Your task to perform on an android device: What's on my calendar today? Image 0: 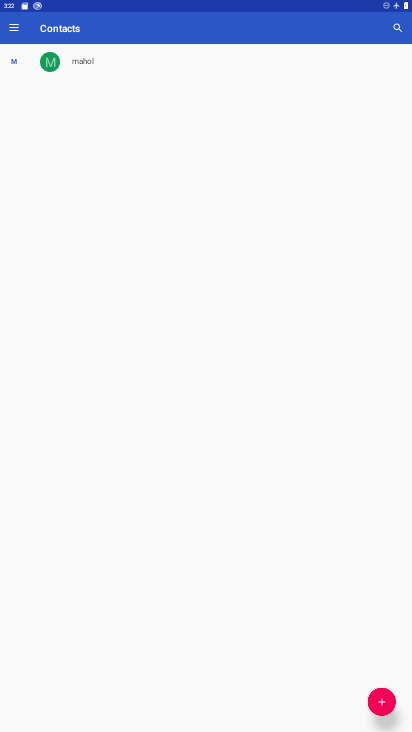
Step 0: press home button
Your task to perform on an android device: What's on my calendar today? Image 1: 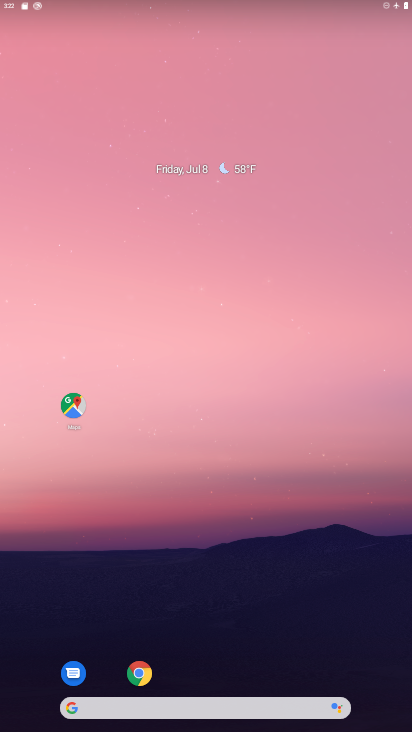
Step 1: drag from (238, 687) to (275, 345)
Your task to perform on an android device: What's on my calendar today? Image 2: 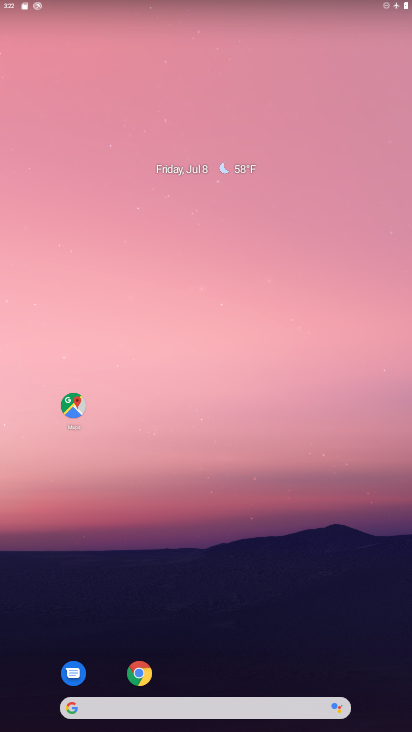
Step 2: drag from (242, 695) to (290, 309)
Your task to perform on an android device: What's on my calendar today? Image 3: 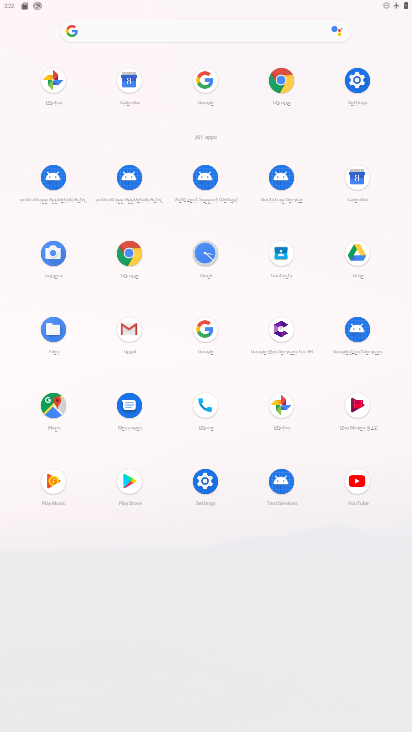
Step 3: click (348, 177)
Your task to perform on an android device: What's on my calendar today? Image 4: 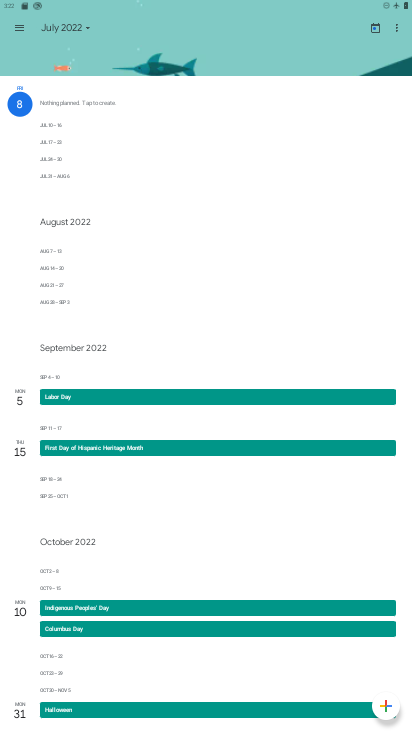
Step 4: task complete